Your task to perform on an android device: clear all cookies in the chrome app Image 0: 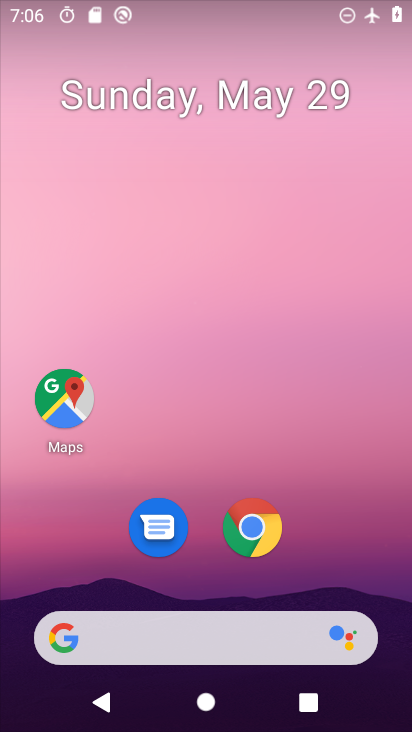
Step 0: drag from (392, 610) to (333, 11)
Your task to perform on an android device: clear all cookies in the chrome app Image 1: 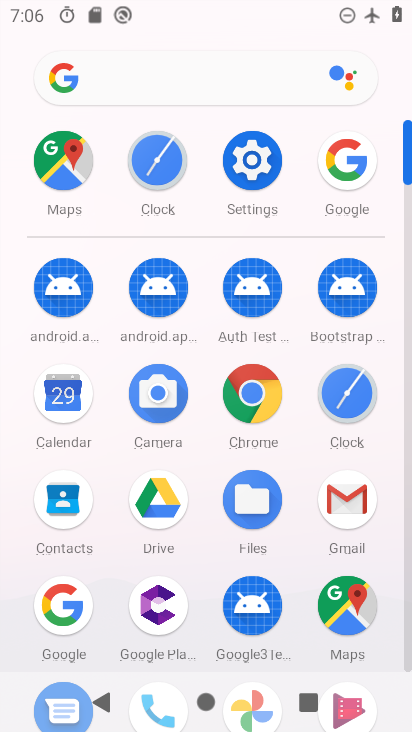
Step 1: click (251, 411)
Your task to perform on an android device: clear all cookies in the chrome app Image 2: 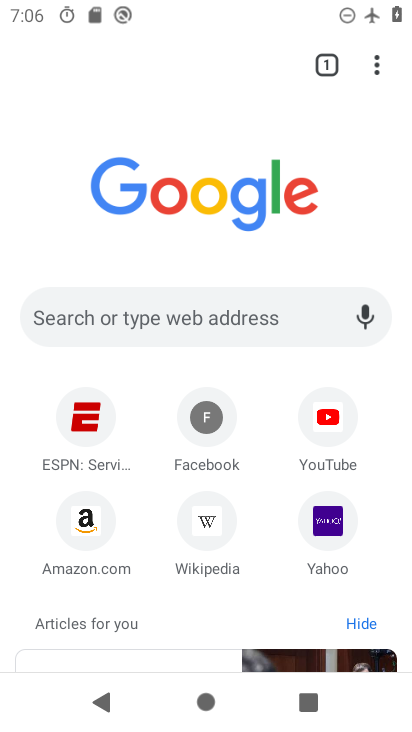
Step 2: click (374, 61)
Your task to perform on an android device: clear all cookies in the chrome app Image 3: 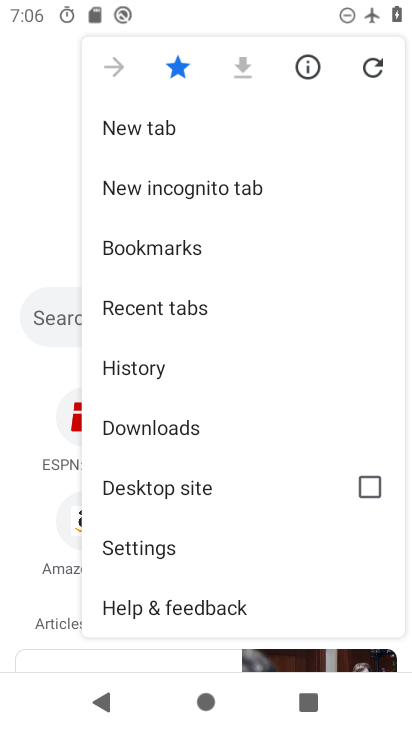
Step 3: click (166, 384)
Your task to perform on an android device: clear all cookies in the chrome app Image 4: 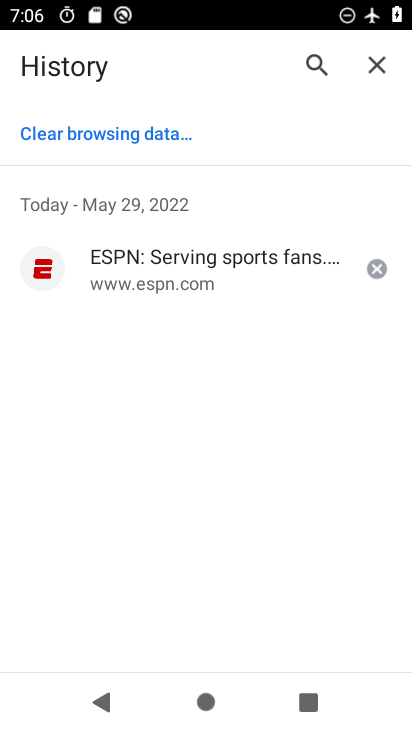
Step 4: click (142, 137)
Your task to perform on an android device: clear all cookies in the chrome app Image 5: 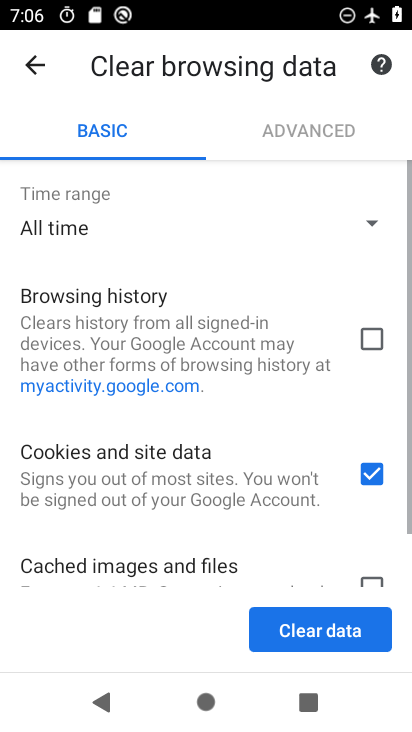
Step 5: click (327, 345)
Your task to perform on an android device: clear all cookies in the chrome app Image 6: 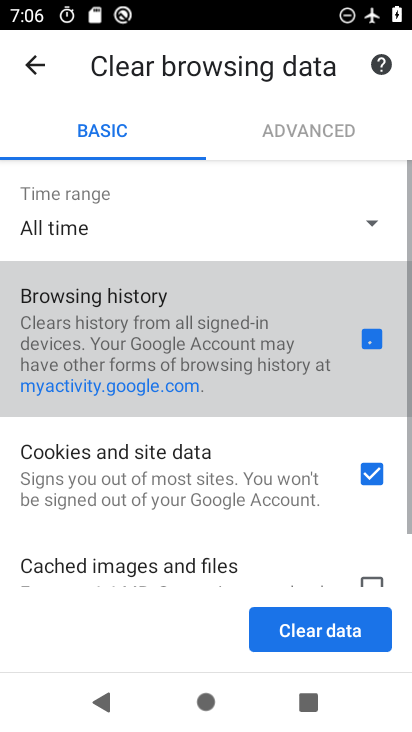
Step 6: click (330, 636)
Your task to perform on an android device: clear all cookies in the chrome app Image 7: 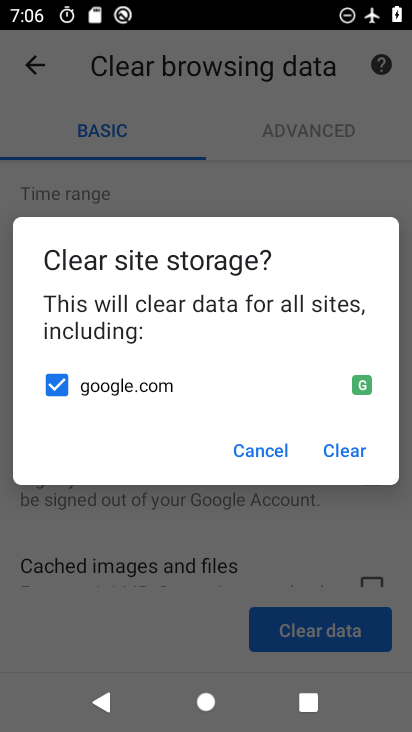
Step 7: click (333, 456)
Your task to perform on an android device: clear all cookies in the chrome app Image 8: 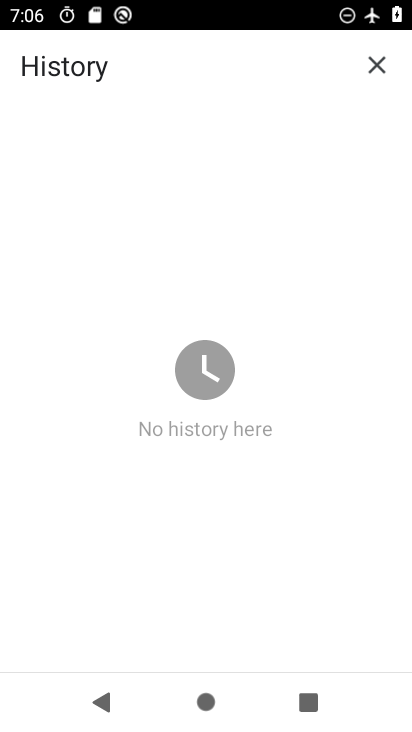
Step 8: task complete